Your task to perform on an android device: turn off picture-in-picture Image 0: 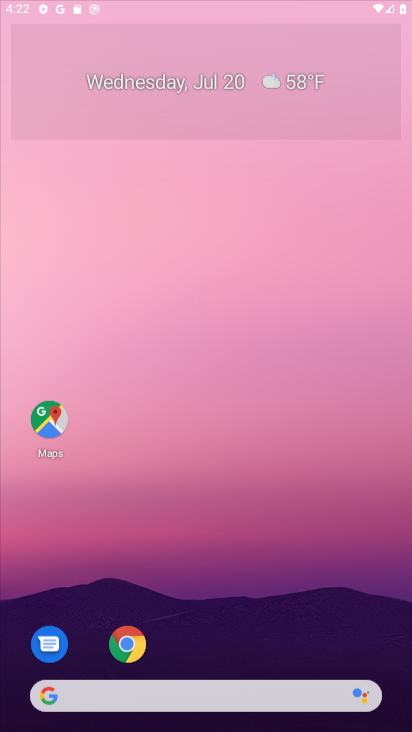
Step 0: press home button
Your task to perform on an android device: turn off picture-in-picture Image 1: 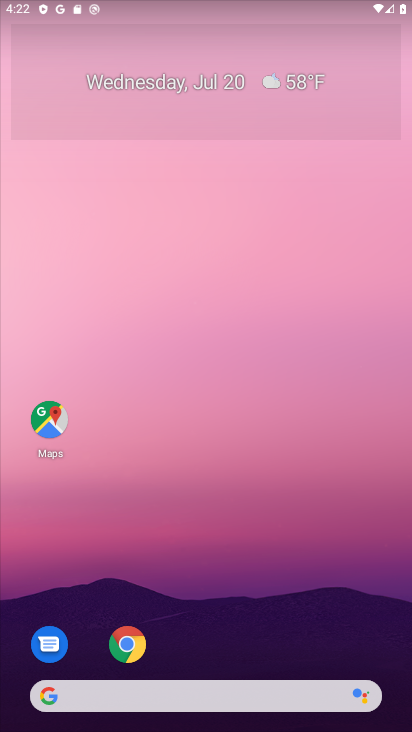
Step 1: click (132, 648)
Your task to perform on an android device: turn off picture-in-picture Image 2: 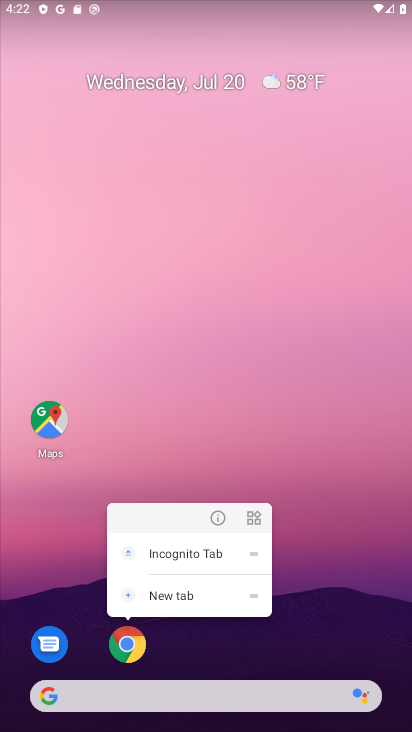
Step 2: click (222, 515)
Your task to perform on an android device: turn off picture-in-picture Image 3: 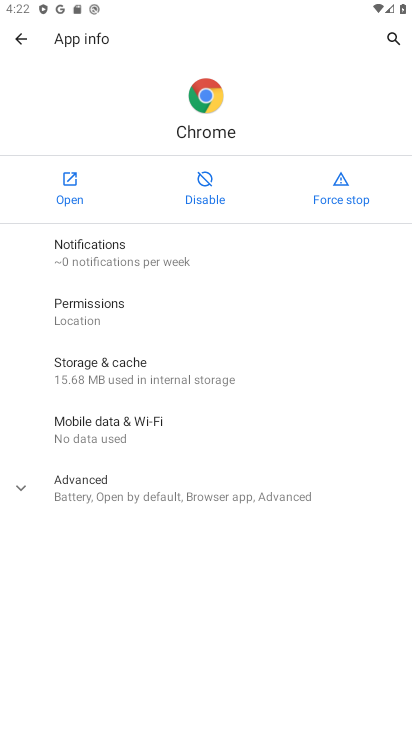
Step 3: click (81, 494)
Your task to perform on an android device: turn off picture-in-picture Image 4: 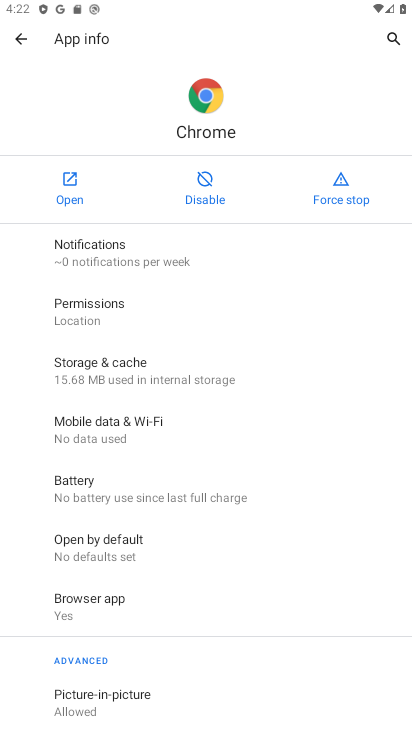
Step 4: click (73, 703)
Your task to perform on an android device: turn off picture-in-picture Image 5: 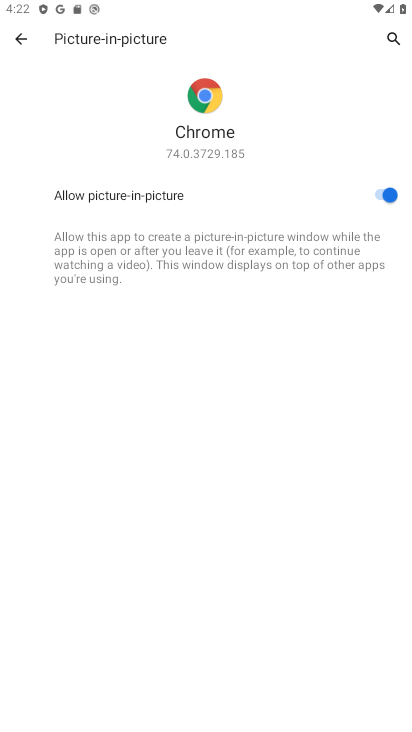
Step 5: click (396, 191)
Your task to perform on an android device: turn off picture-in-picture Image 6: 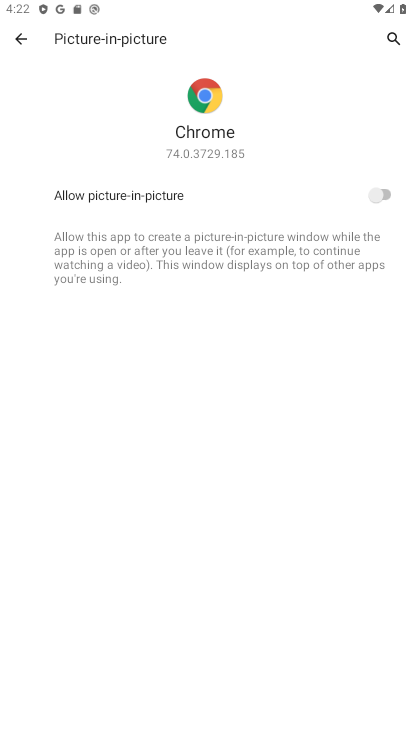
Step 6: task complete